Your task to perform on an android device: Do I have any events tomorrow? Image 0: 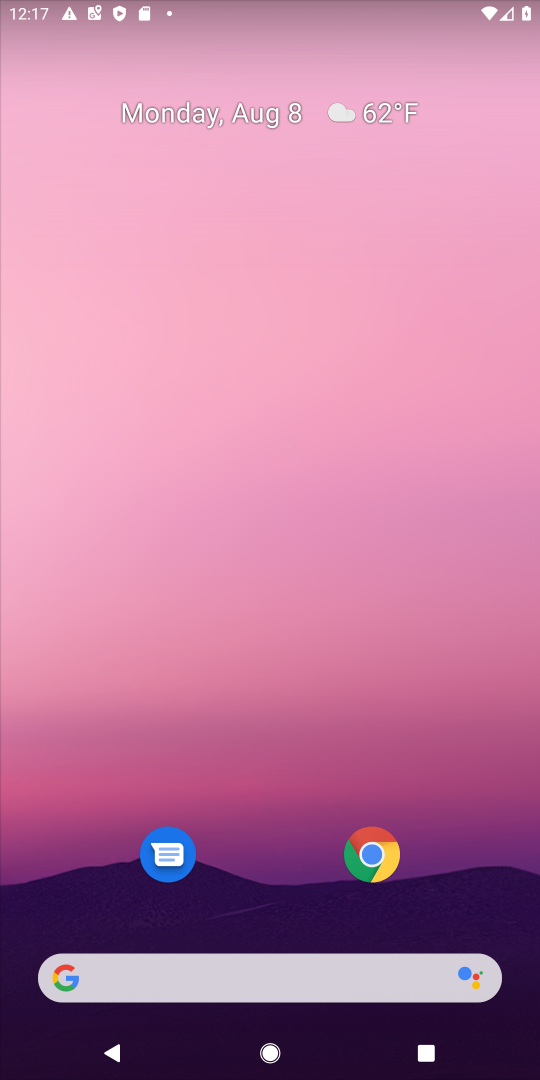
Step 0: drag from (292, 760) to (502, 0)
Your task to perform on an android device: Do I have any events tomorrow? Image 1: 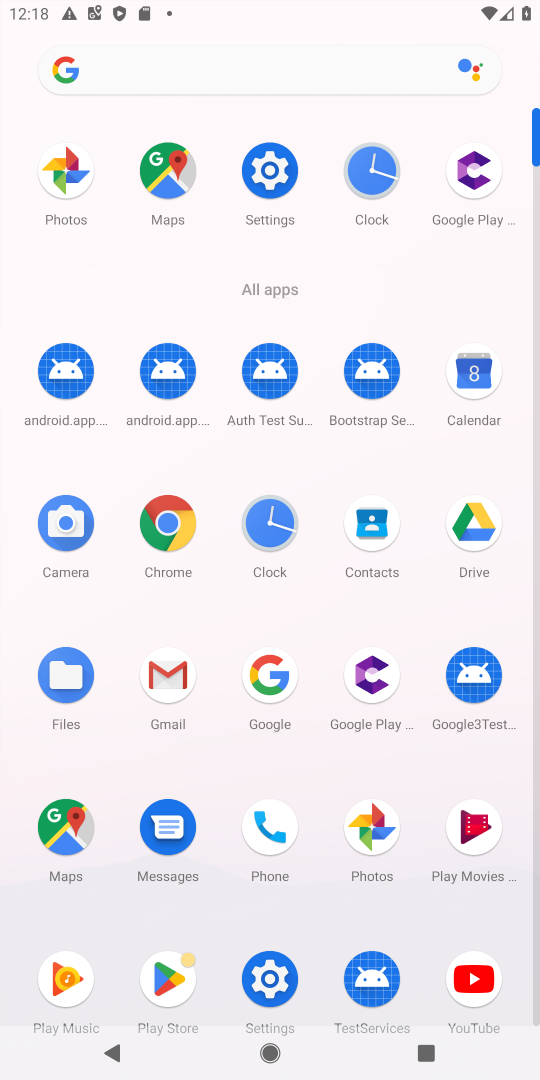
Step 1: click (477, 379)
Your task to perform on an android device: Do I have any events tomorrow? Image 2: 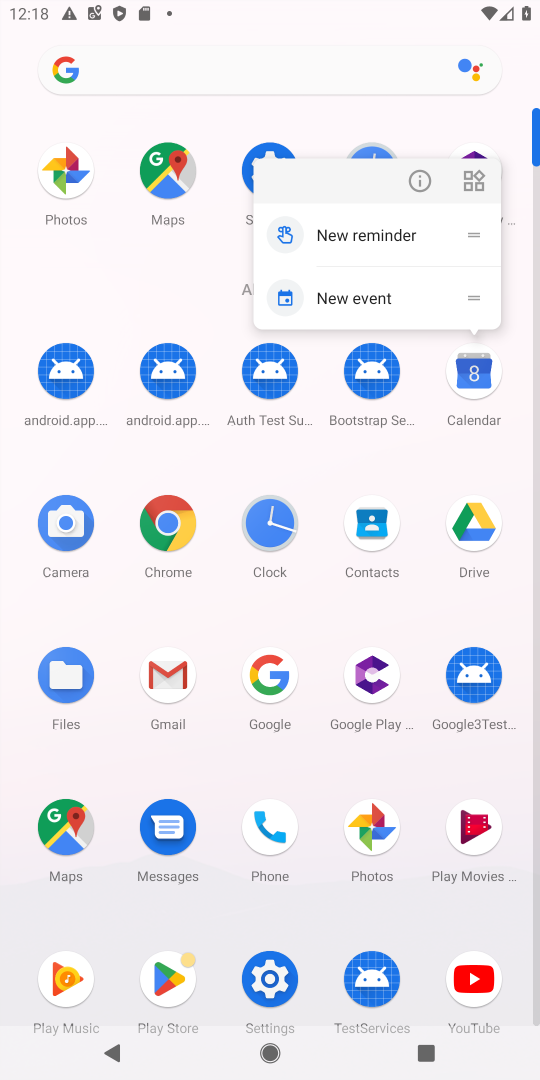
Step 2: click (477, 373)
Your task to perform on an android device: Do I have any events tomorrow? Image 3: 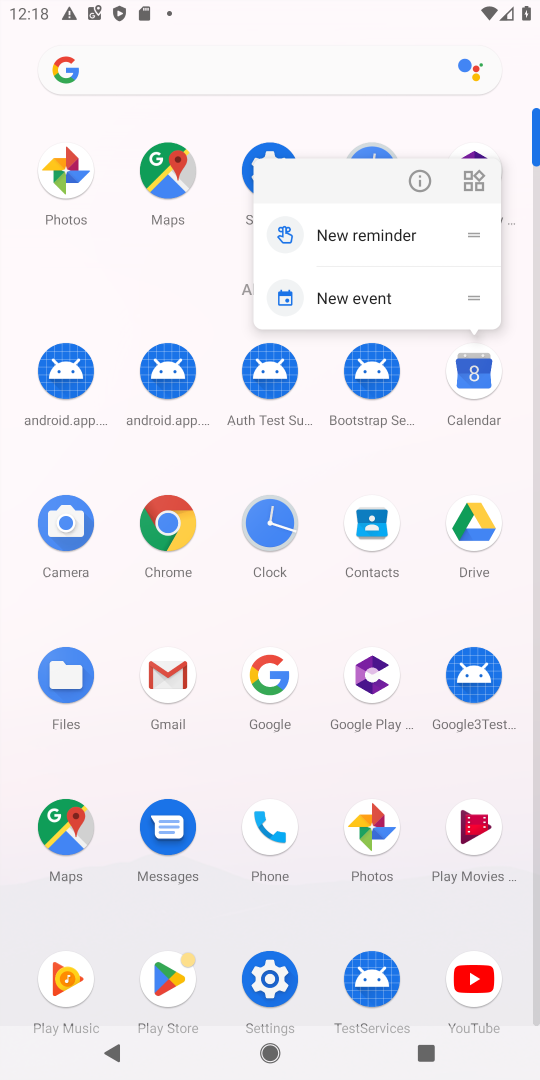
Step 3: click (477, 373)
Your task to perform on an android device: Do I have any events tomorrow? Image 4: 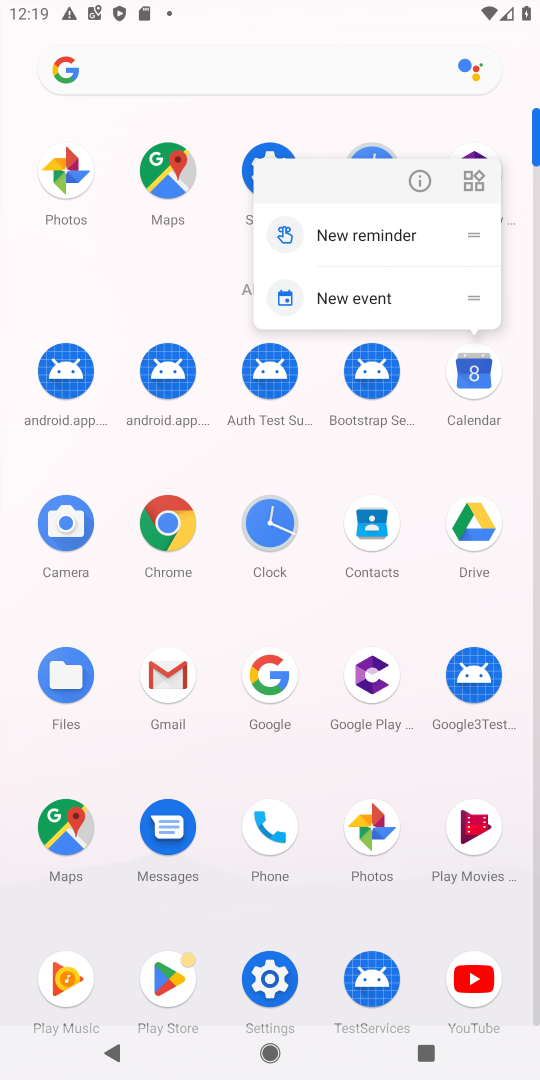
Step 4: click (477, 389)
Your task to perform on an android device: Do I have any events tomorrow? Image 5: 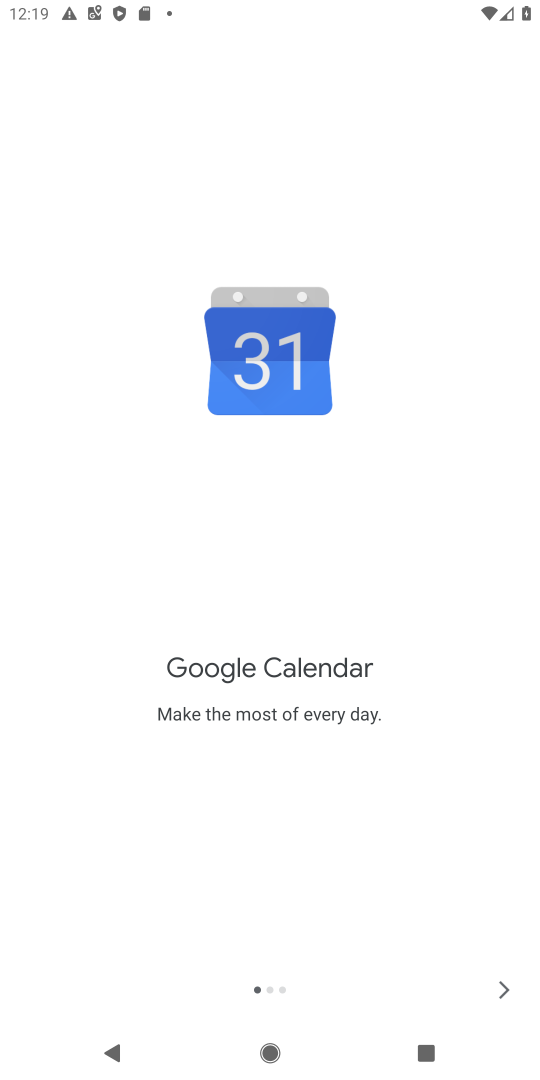
Step 5: click (498, 986)
Your task to perform on an android device: Do I have any events tomorrow? Image 6: 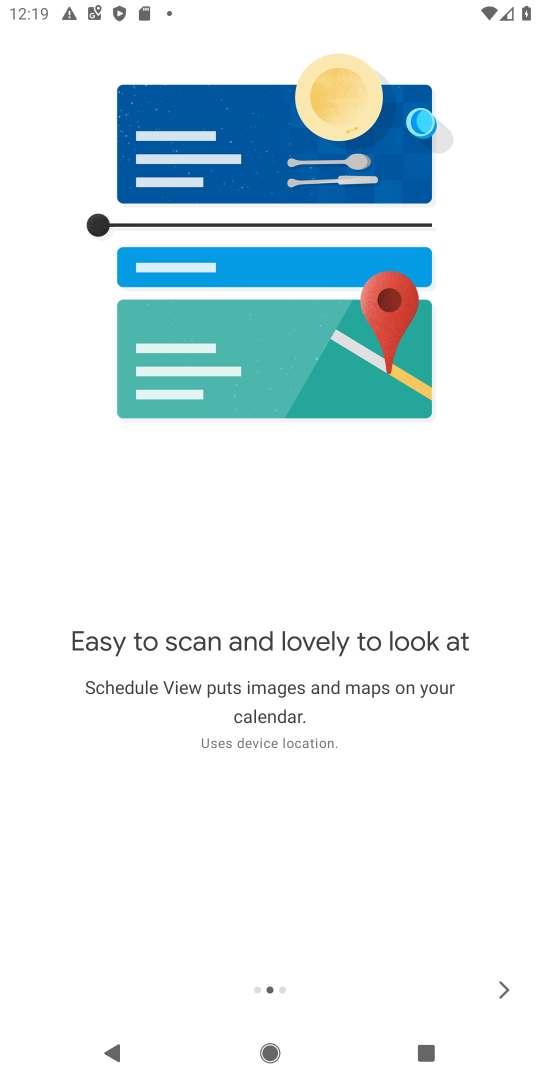
Step 6: click (507, 987)
Your task to perform on an android device: Do I have any events tomorrow? Image 7: 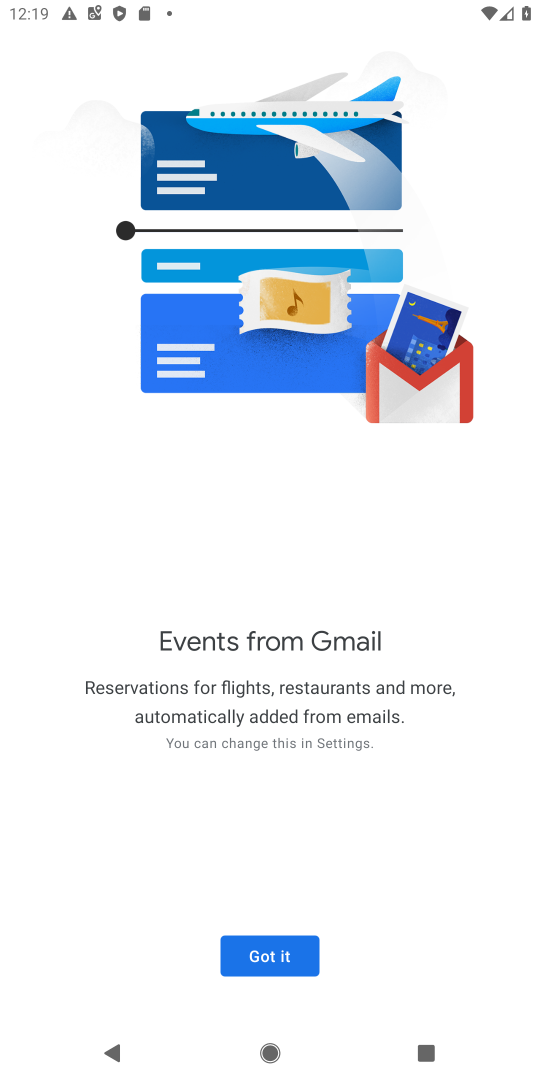
Step 7: click (296, 950)
Your task to perform on an android device: Do I have any events tomorrow? Image 8: 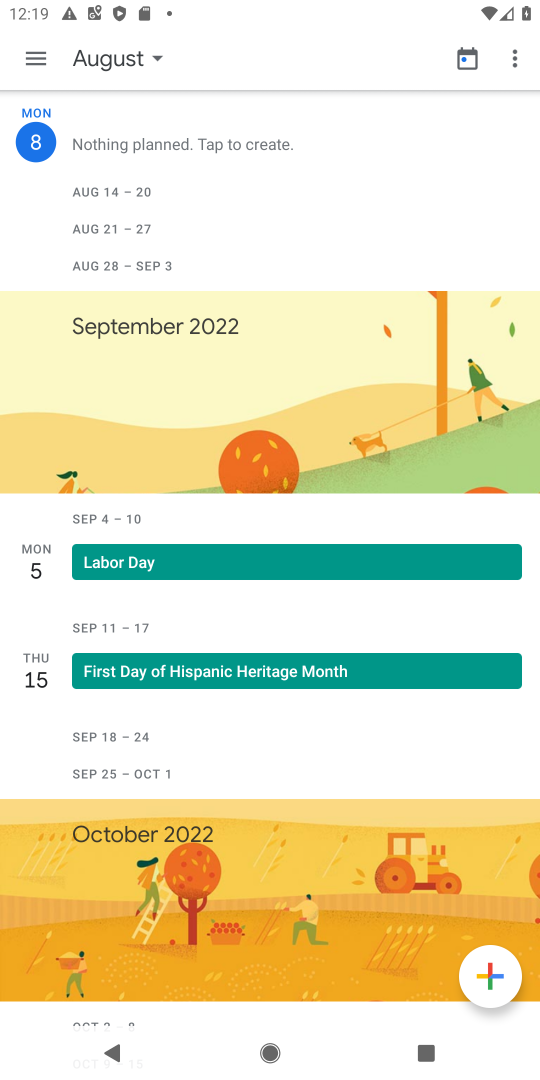
Step 8: click (157, 64)
Your task to perform on an android device: Do I have any events tomorrow? Image 9: 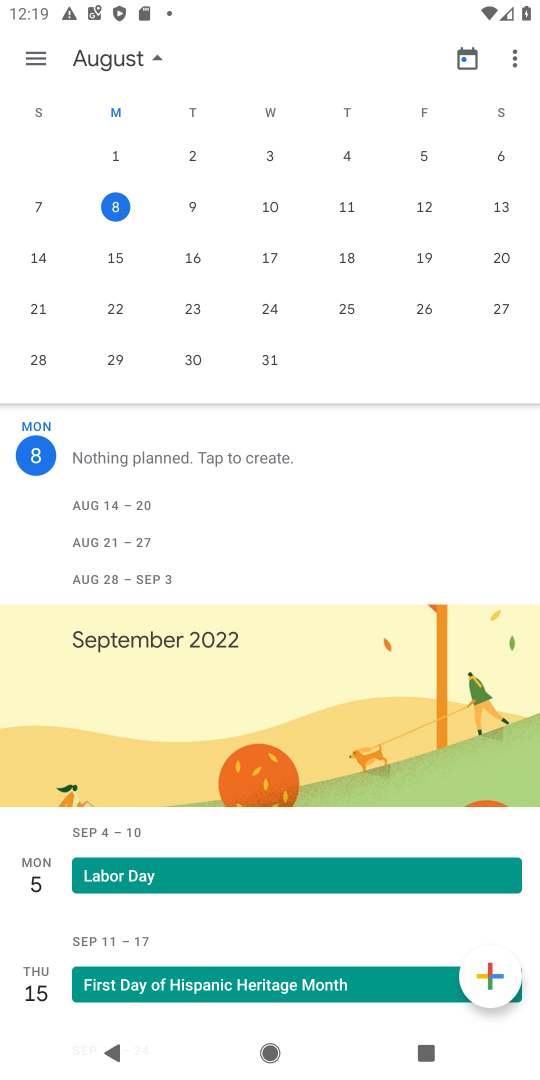
Step 9: click (195, 209)
Your task to perform on an android device: Do I have any events tomorrow? Image 10: 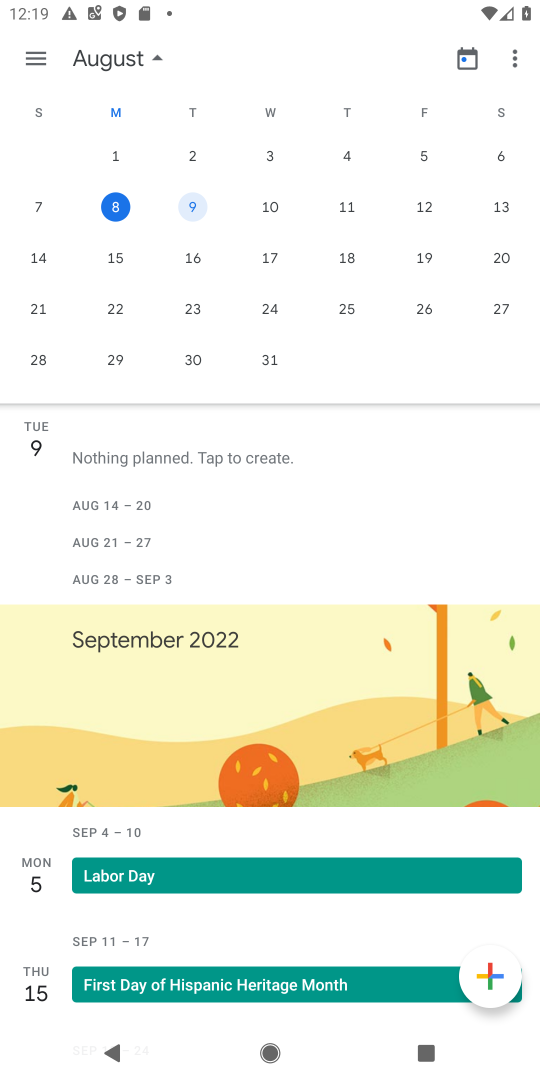
Step 10: task complete